Your task to perform on an android device: Open settings on Google Maps Image 0: 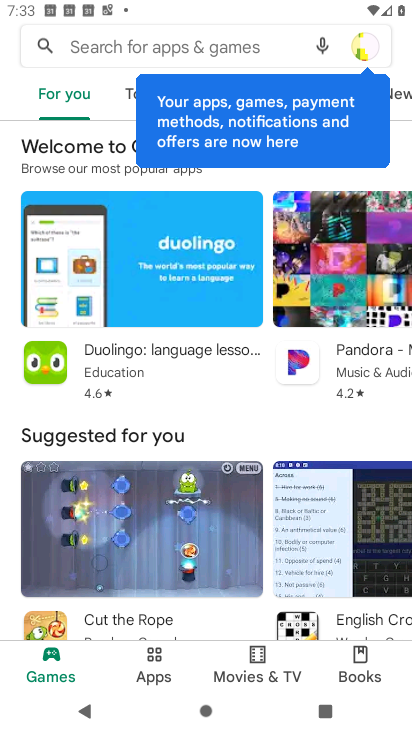
Step 0: press home button
Your task to perform on an android device: Open settings on Google Maps Image 1: 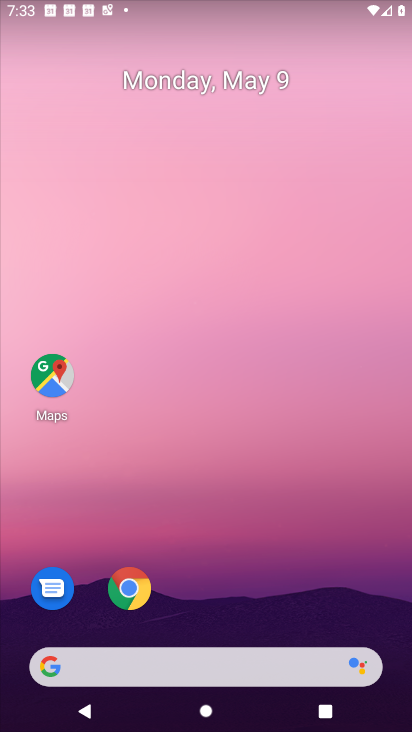
Step 1: click (56, 377)
Your task to perform on an android device: Open settings on Google Maps Image 2: 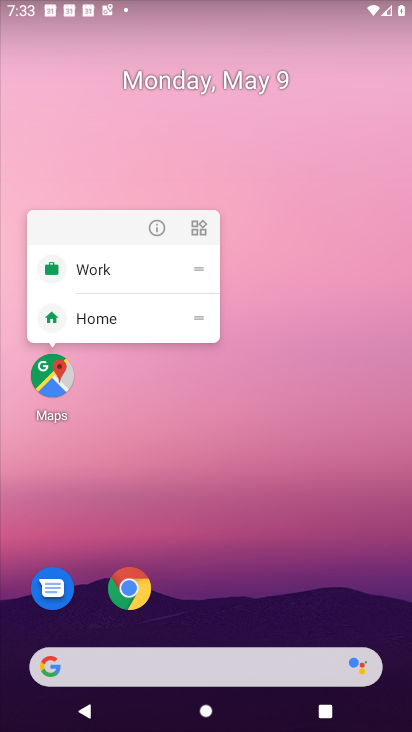
Step 2: click (59, 384)
Your task to perform on an android device: Open settings on Google Maps Image 3: 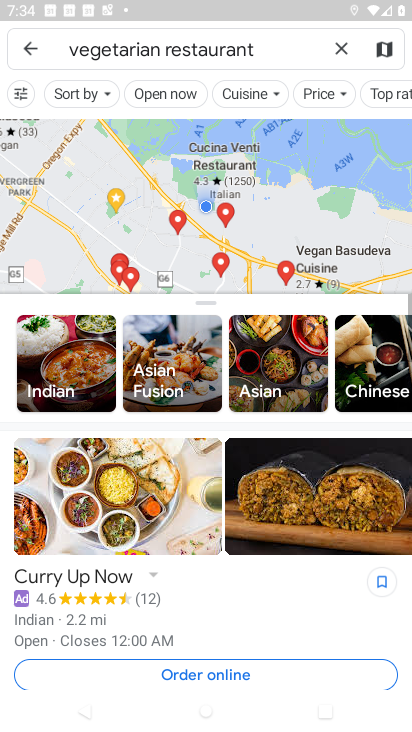
Step 3: click (29, 44)
Your task to perform on an android device: Open settings on Google Maps Image 4: 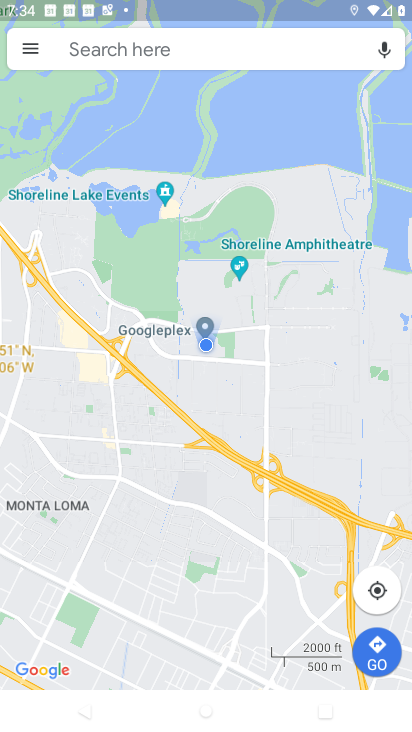
Step 4: click (29, 45)
Your task to perform on an android device: Open settings on Google Maps Image 5: 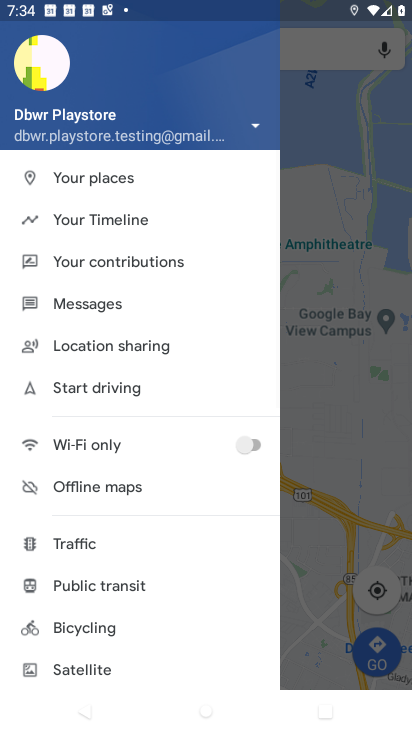
Step 5: drag from (141, 630) to (270, 132)
Your task to perform on an android device: Open settings on Google Maps Image 6: 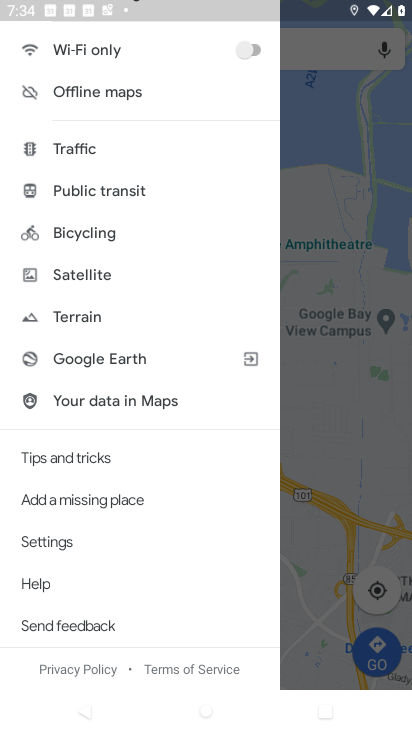
Step 6: click (57, 543)
Your task to perform on an android device: Open settings on Google Maps Image 7: 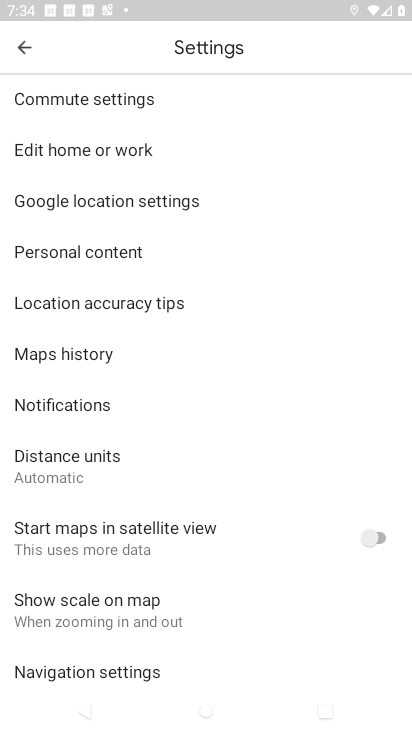
Step 7: task complete